Your task to perform on an android device: Open Wikipedia Image 0: 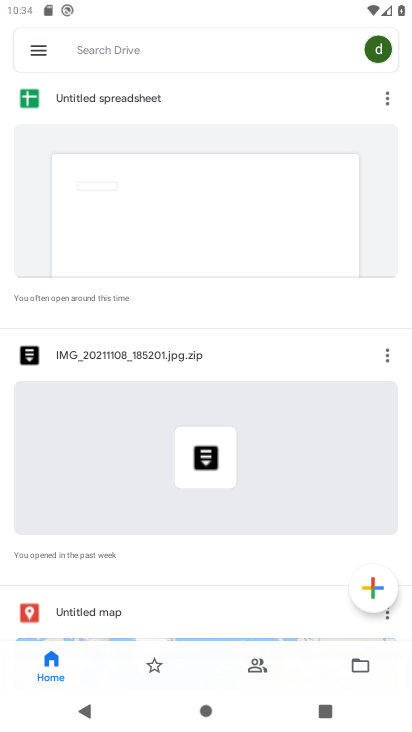
Step 0: press home button
Your task to perform on an android device: Open Wikipedia Image 1: 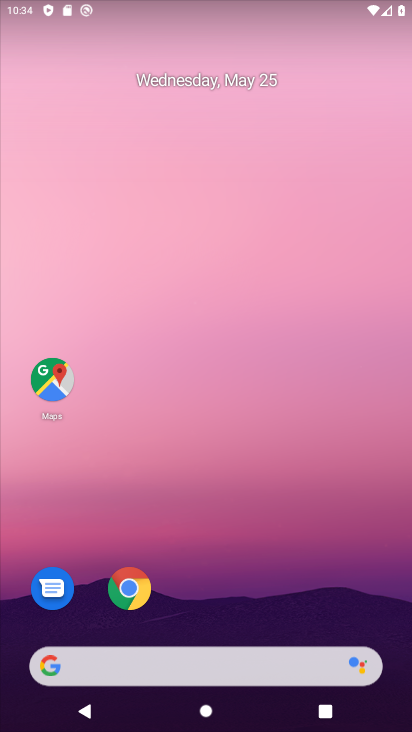
Step 1: click (147, 584)
Your task to perform on an android device: Open Wikipedia Image 2: 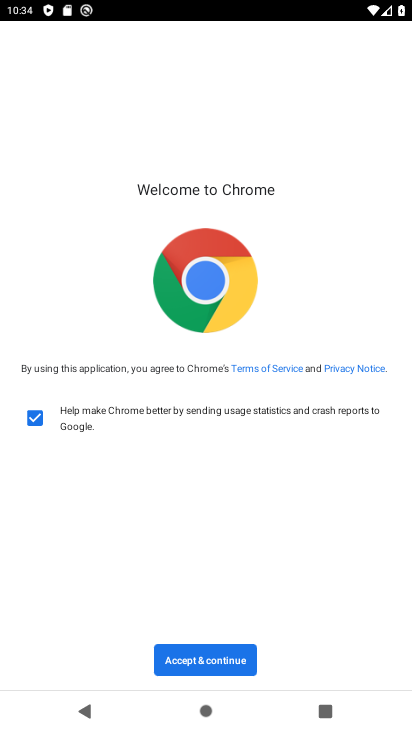
Step 2: click (195, 657)
Your task to perform on an android device: Open Wikipedia Image 3: 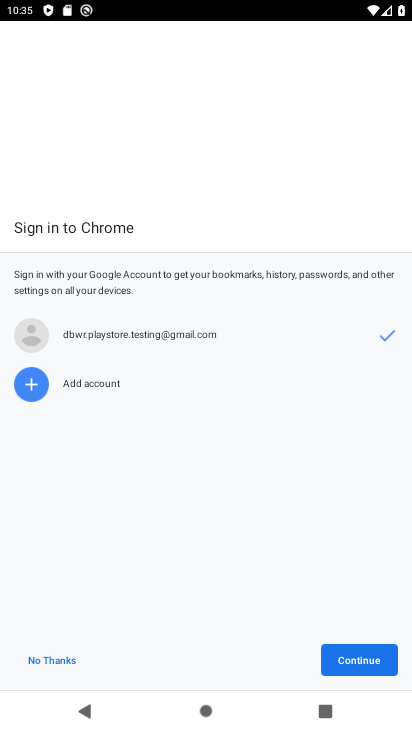
Step 3: click (378, 670)
Your task to perform on an android device: Open Wikipedia Image 4: 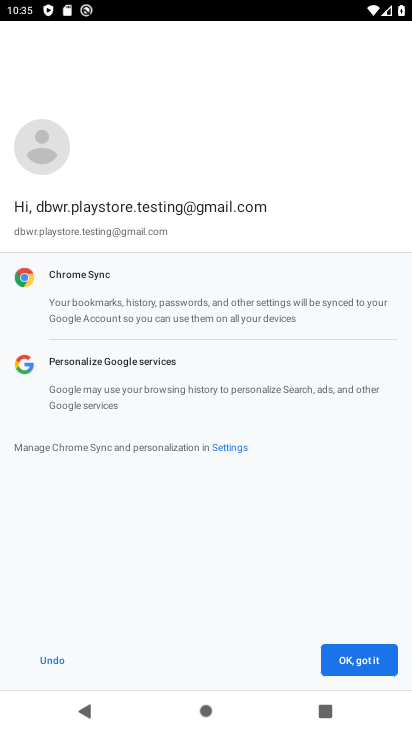
Step 4: click (378, 670)
Your task to perform on an android device: Open Wikipedia Image 5: 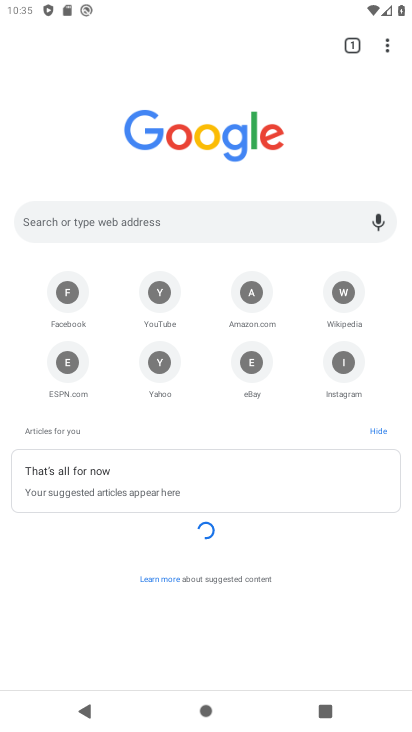
Step 5: click (334, 293)
Your task to perform on an android device: Open Wikipedia Image 6: 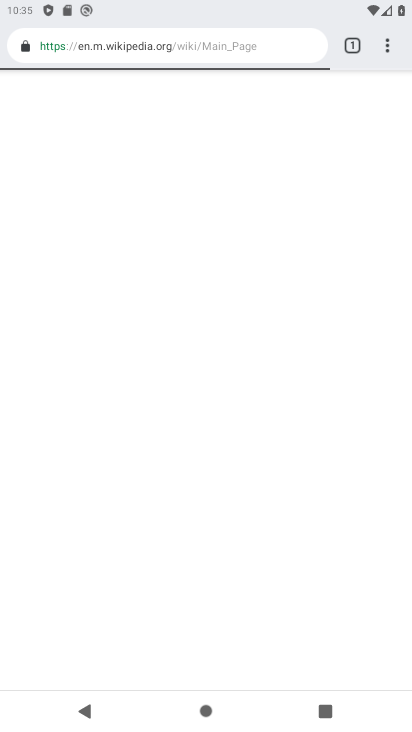
Step 6: task complete